Your task to perform on an android device: Search for the best rated book on Goodreads. Image 0: 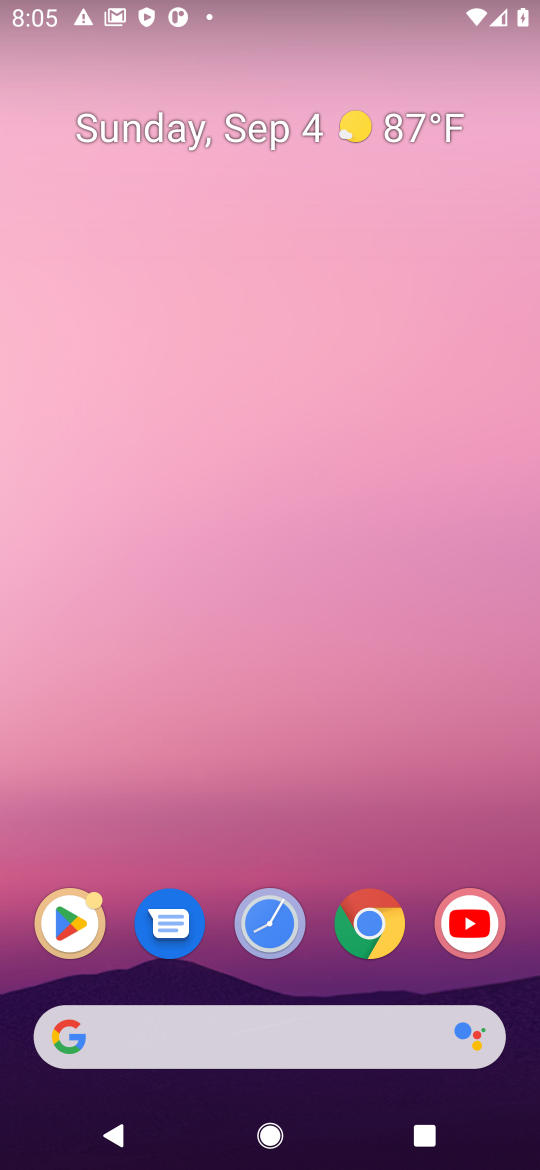
Step 0: press home button
Your task to perform on an android device: Search for the best rated book on Goodreads. Image 1: 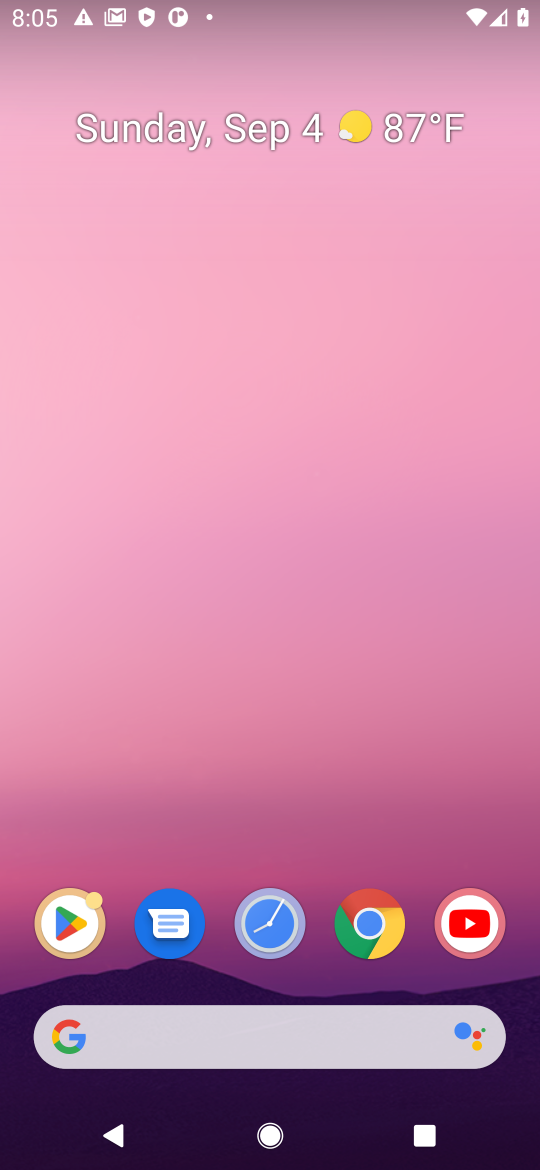
Step 1: click (402, 1036)
Your task to perform on an android device: Search for the best rated book on Goodreads. Image 2: 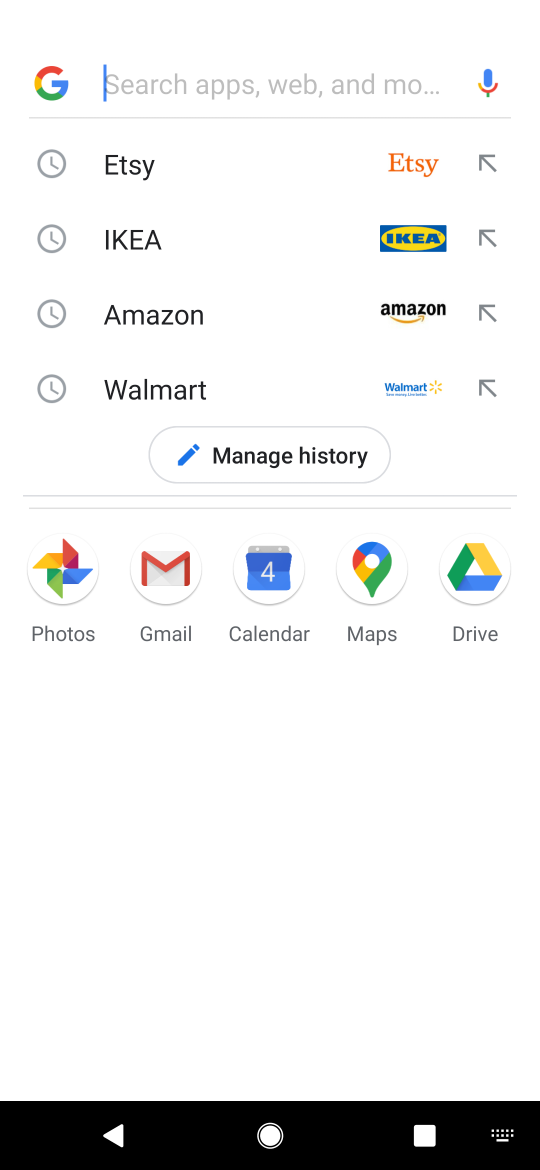
Step 2: press enter
Your task to perform on an android device: Search for the best rated book on Goodreads. Image 3: 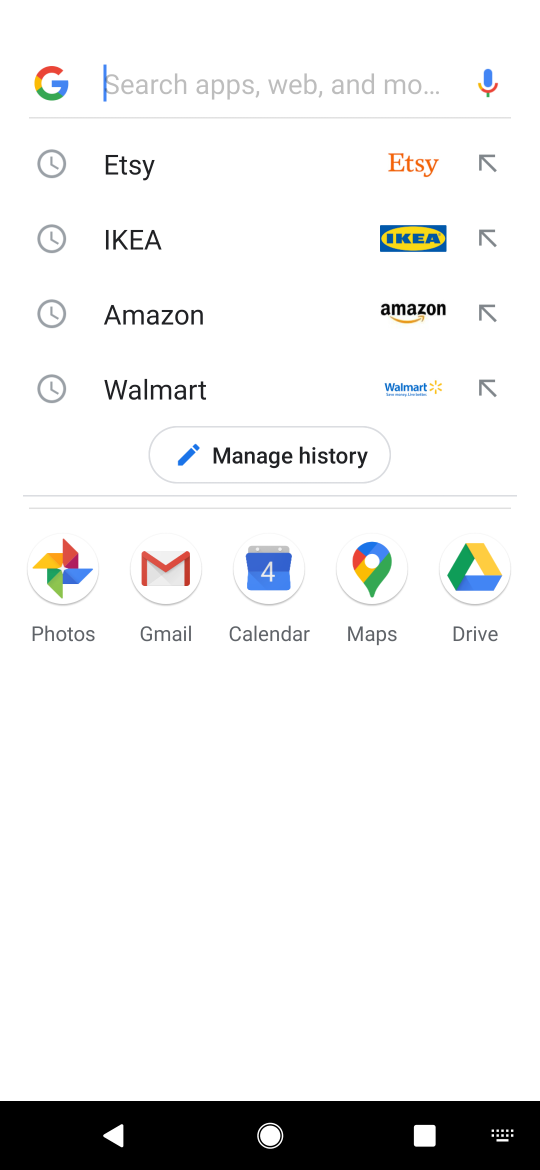
Step 3: type "goodreads"
Your task to perform on an android device: Search for the best rated book on Goodreads. Image 4: 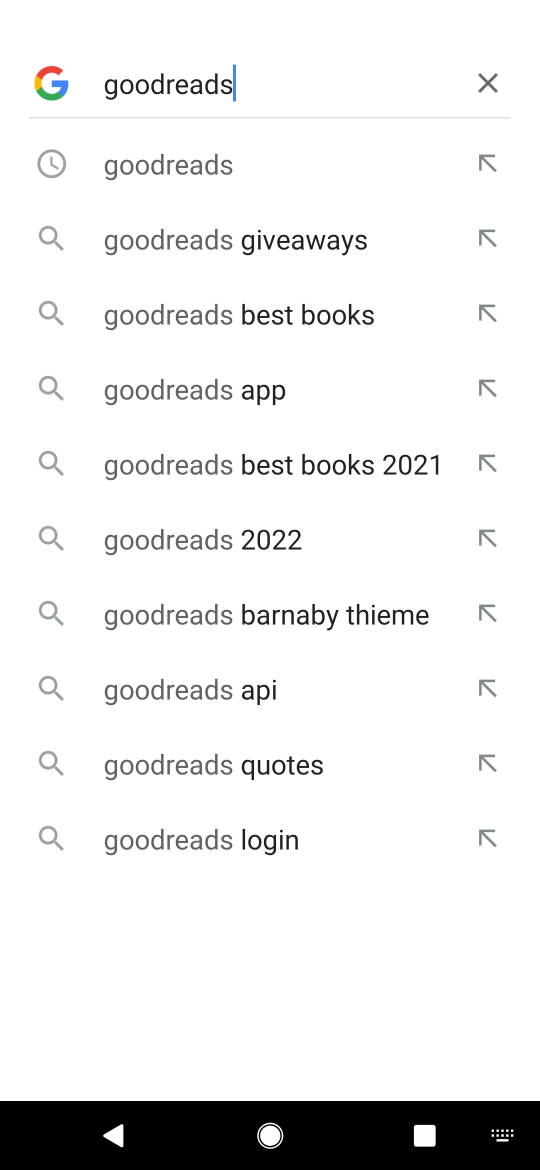
Step 4: click (207, 171)
Your task to perform on an android device: Search for the best rated book on Goodreads. Image 5: 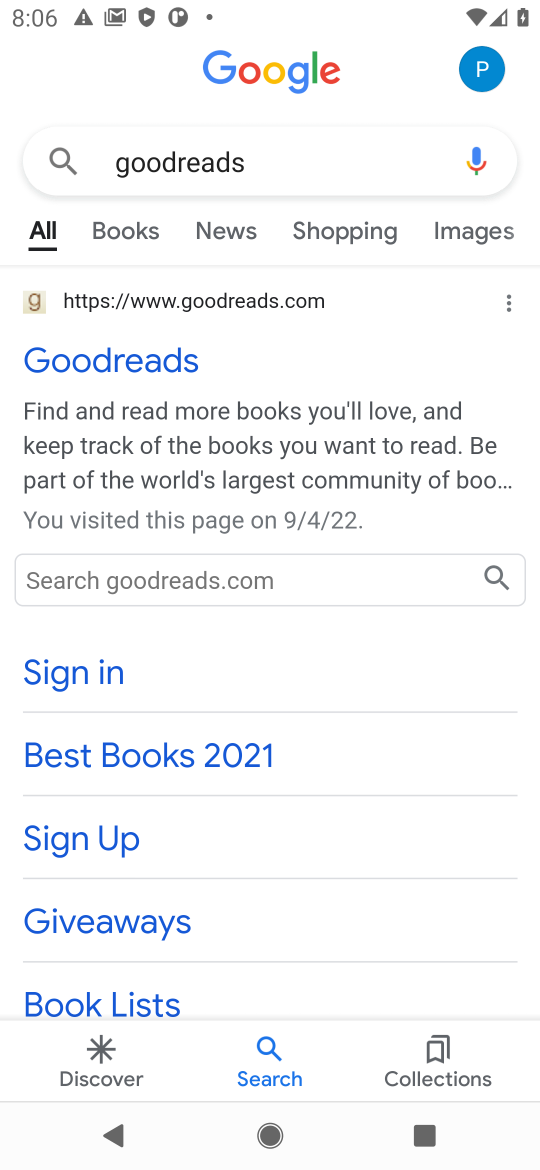
Step 5: click (136, 359)
Your task to perform on an android device: Search for the best rated book on Goodreads. Image 6: 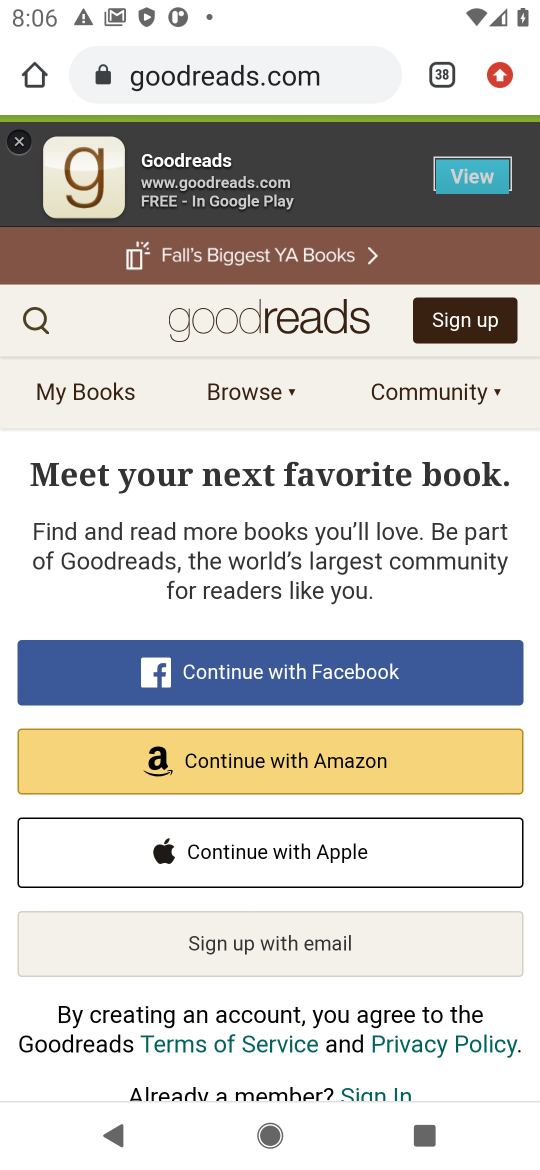
Step 6: click (83, 323)
Your task to perform on an android device: Search for the best rated book on Goodreads. Image 7: 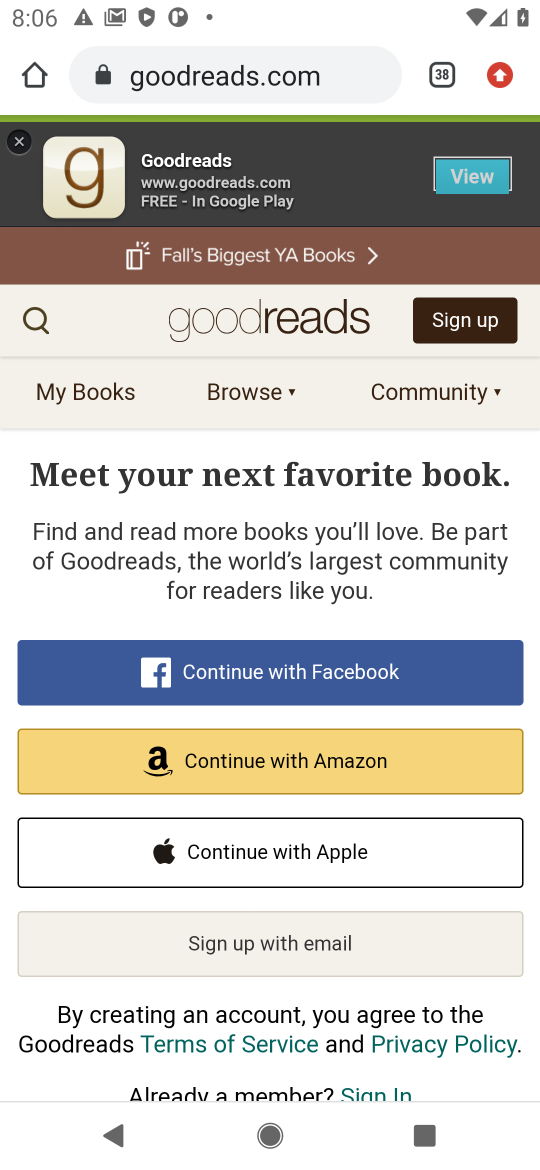
Step 7: click (49, 342)
Your task to perform on an android device: Search for the best rated book on Goodreads. Image 8: 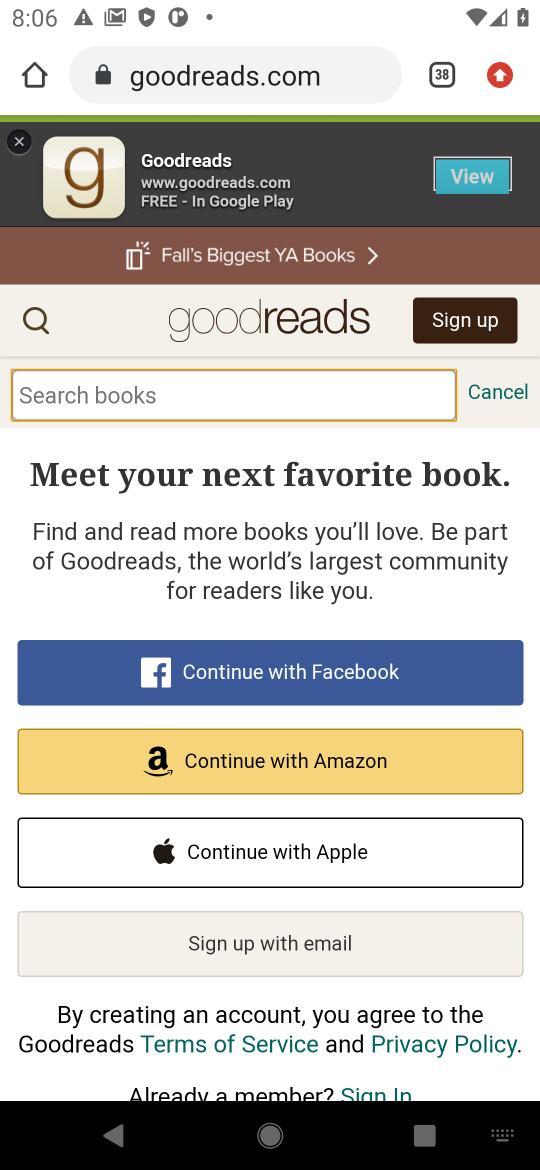
Step 8: press enter
Your task to perform on an android device: Search for the best rated book on Goodreads. Image 9: 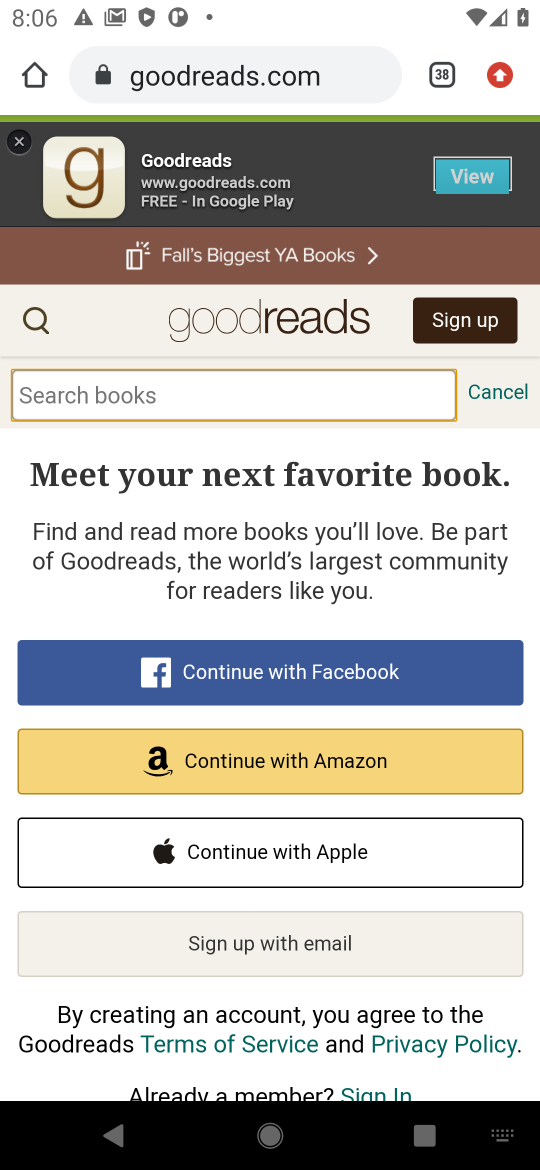
Step 9: type "best rated book"
Your task to perform on an android device: Search for the best rated book on Goodreads. Image 10: 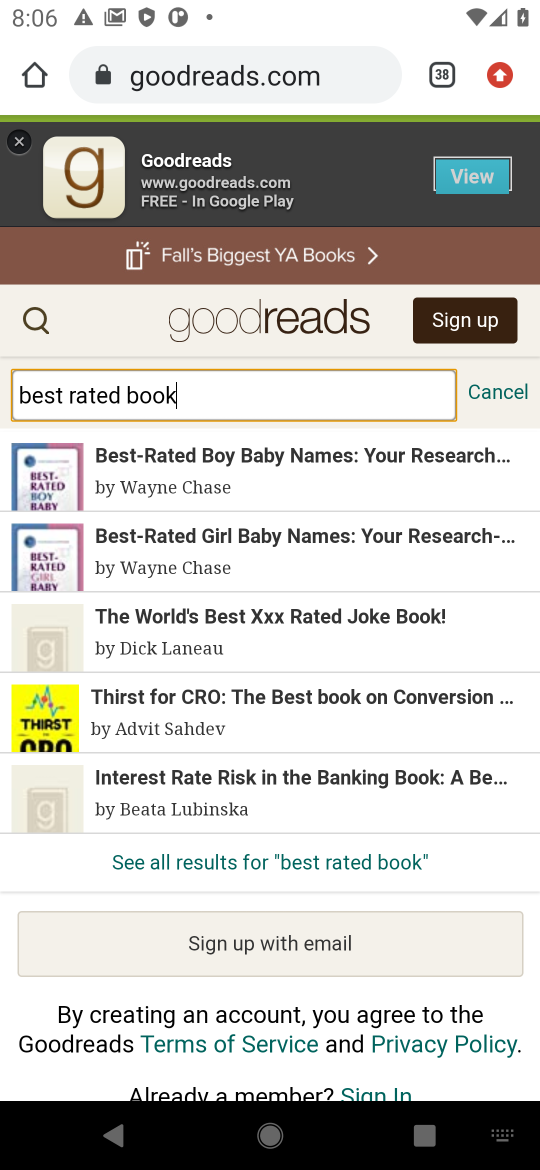
Step 10: task complete